Your task to perform on an android device: change text size in settings app Image 0: 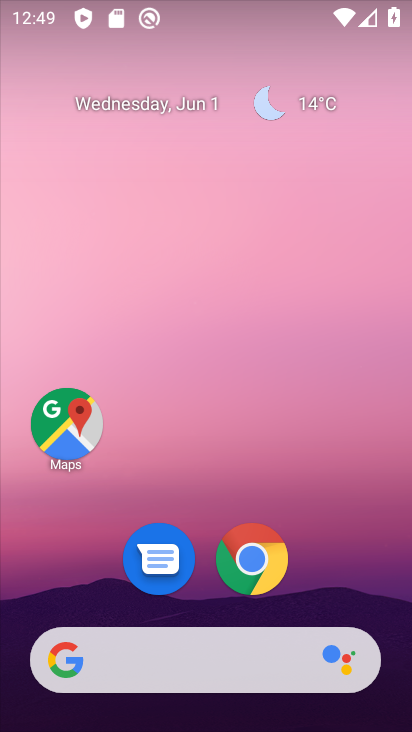
Step 0: drag from (379, 697) to (320, 237)
Your task to perform on an android device: change text size in settings app Image 1: 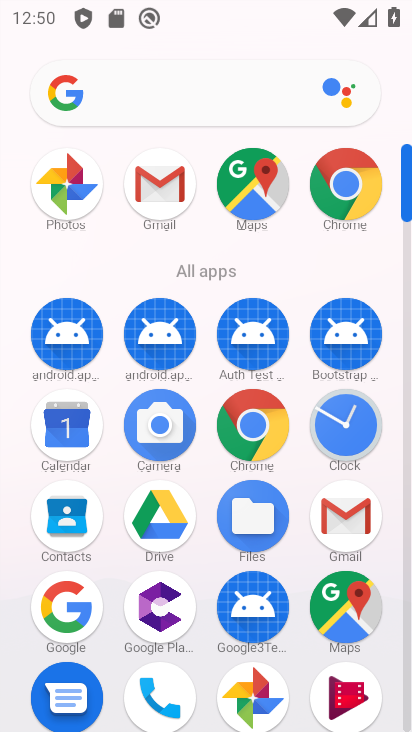
Step 1: drag from (205, 673) to (214, 215)
Your task to perform on an android device: change text size in settings app Image 2: 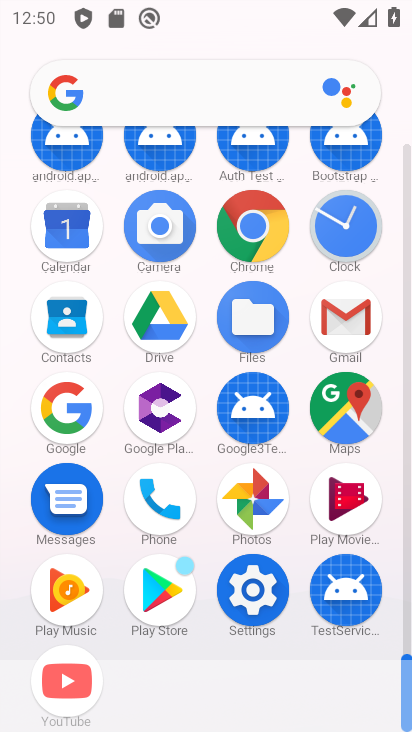
Step 2: click (254, 606)
Your task to perform on an android device: change text size in settings app Image 3: 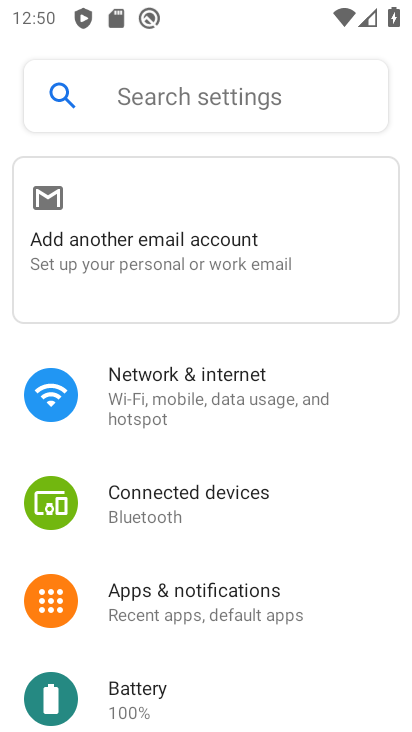
Step 3: drag from (283, 695) to (309, 290)
Your task to perform on an android device: change text size in settings app Image 4: 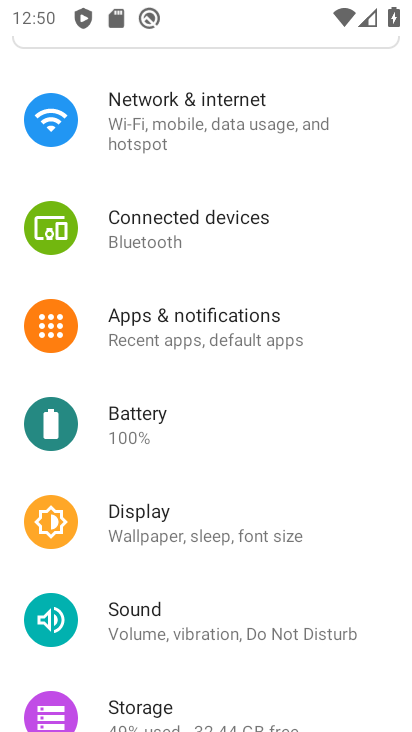
Step 4: click (136, 534)
Your task to perform on an android device: change text size in settings app Image 5: 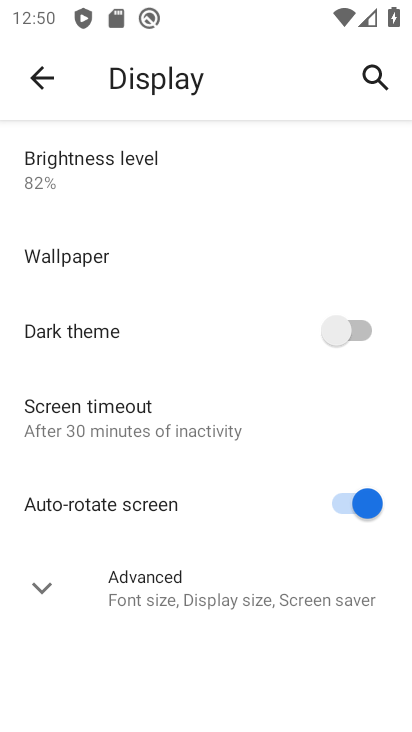
Step 5: click (30, 594)
Your task to perform on an android device: change text size in settings app Image 6: 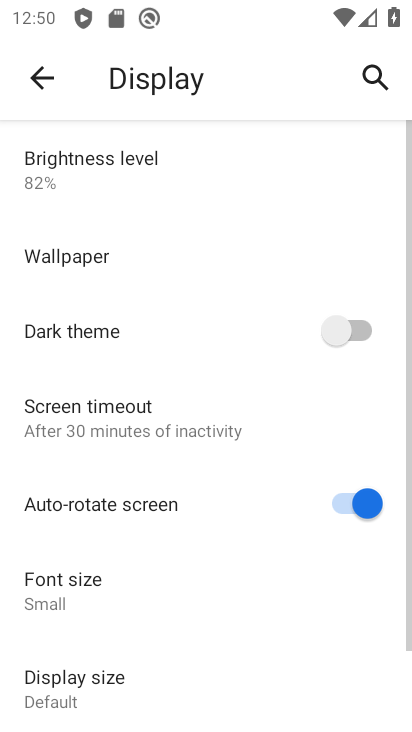
Step 6: drag from (208, 645) to (266, 271)
Your task to perform on an android device: change text size in settings app Image 7: 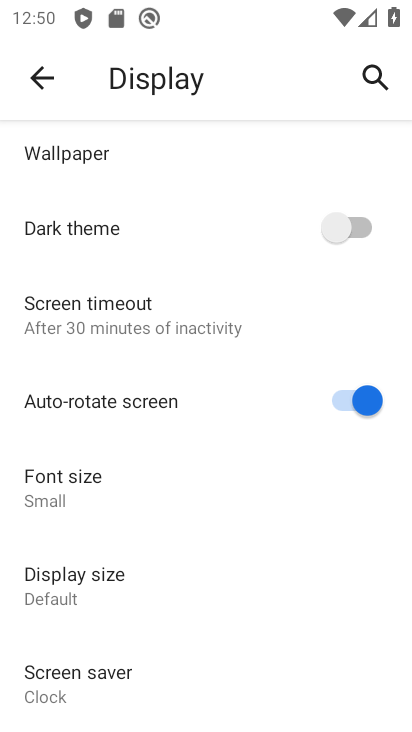
Step 7: click (65, 484)
Your task to perform on an android device: change text size in settings app Image 8: 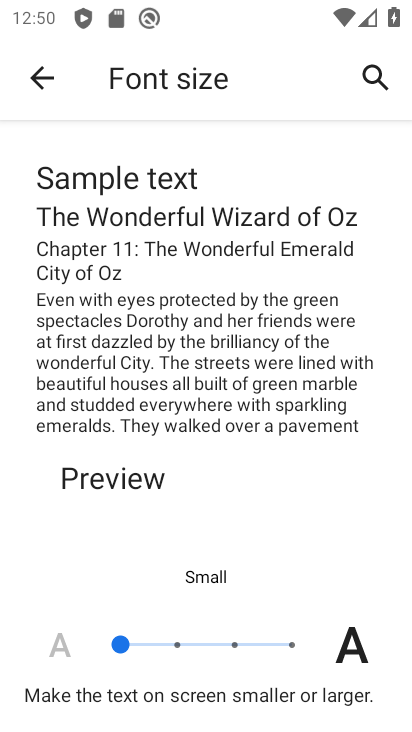
Step 8: click (179, 649)
Your task to perform on an android device: change text size in settings app Image 9: 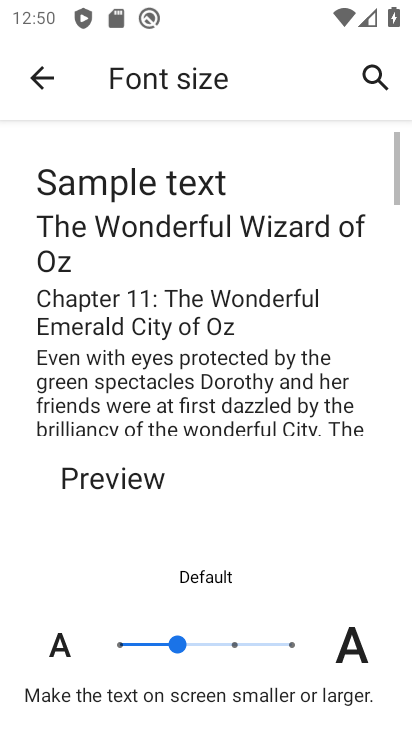
Step 9: task complete